Your task to perform on an android device: Open settings on Google Maps Image 0: 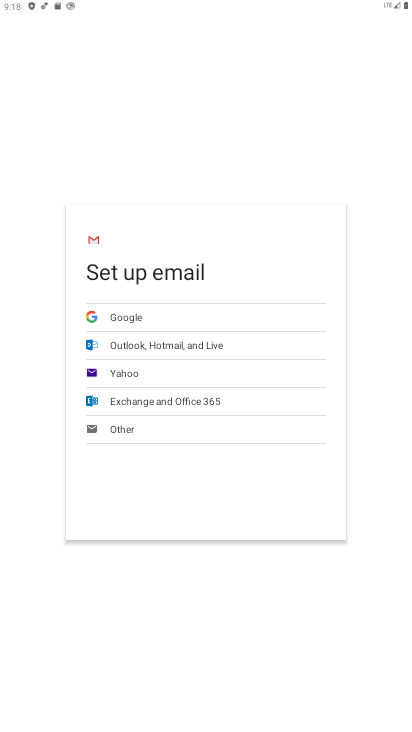
Step 0: press home button
Your task to perform on an android device: Open settings on Google Maps Image 1: 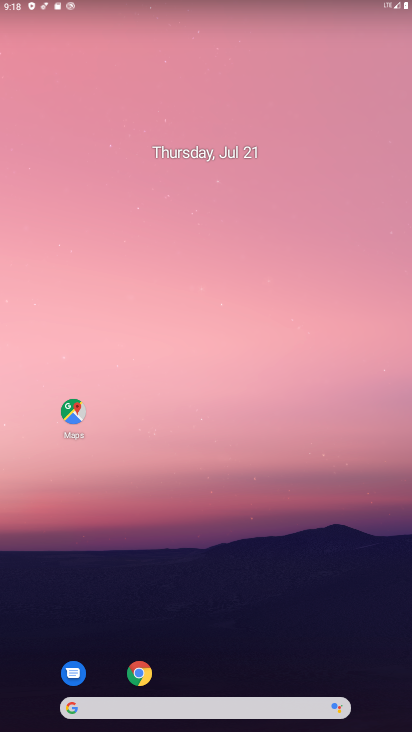
Step 1: click (87, 416)
Your task to perform on an android device: Open settings on Google Maps Image 2: 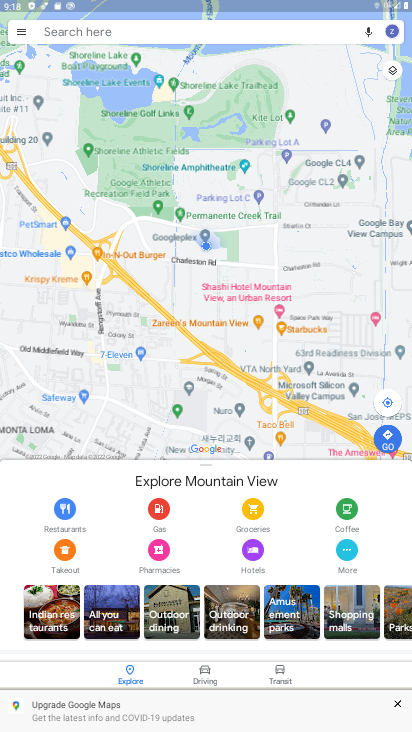
Step 2: click (16, 35)
Your task to perform on an android device: Open settings on Google Maps Image 3: 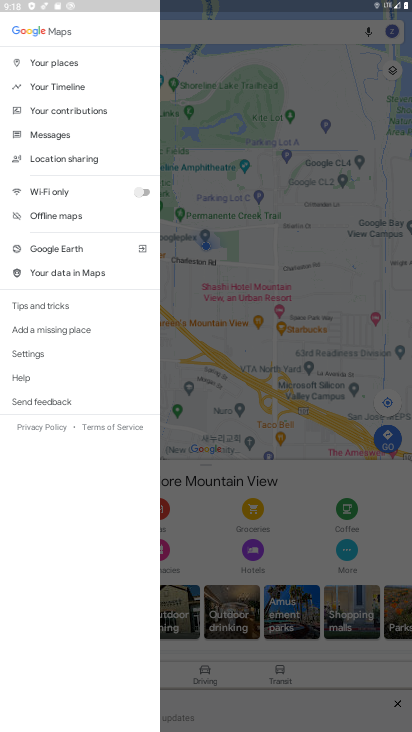
Step 3: click (34, 358)
Your task to perform on an android device: Open settings on Google Maps Image 4: 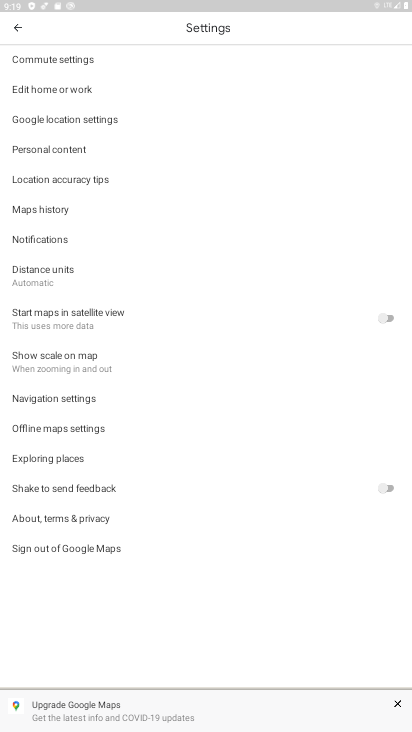
Step 4: task complete